Your task to perform on an android device: Open Chrome and go to settings Image 0: 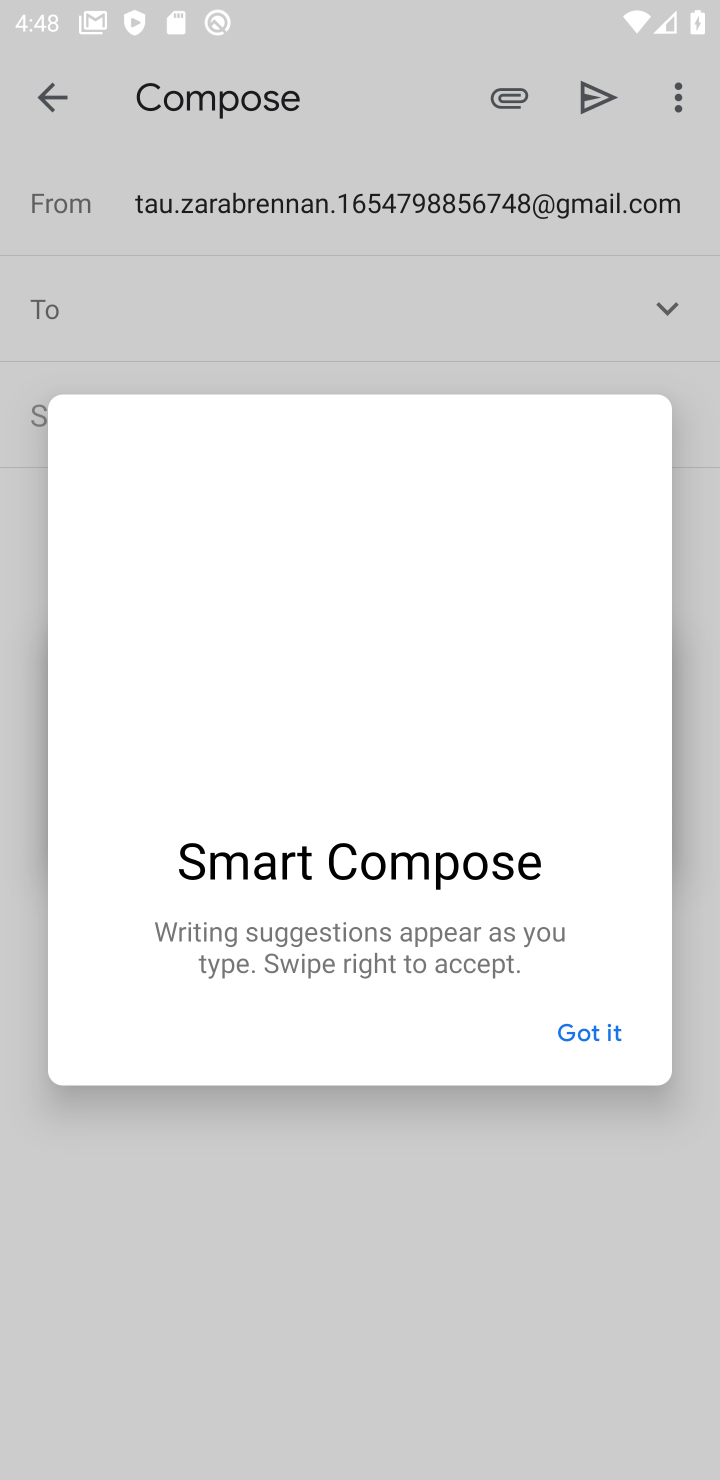
Step 0: press home button
Your task to perform on an android device: Open Chrome and go to settings Image 1: 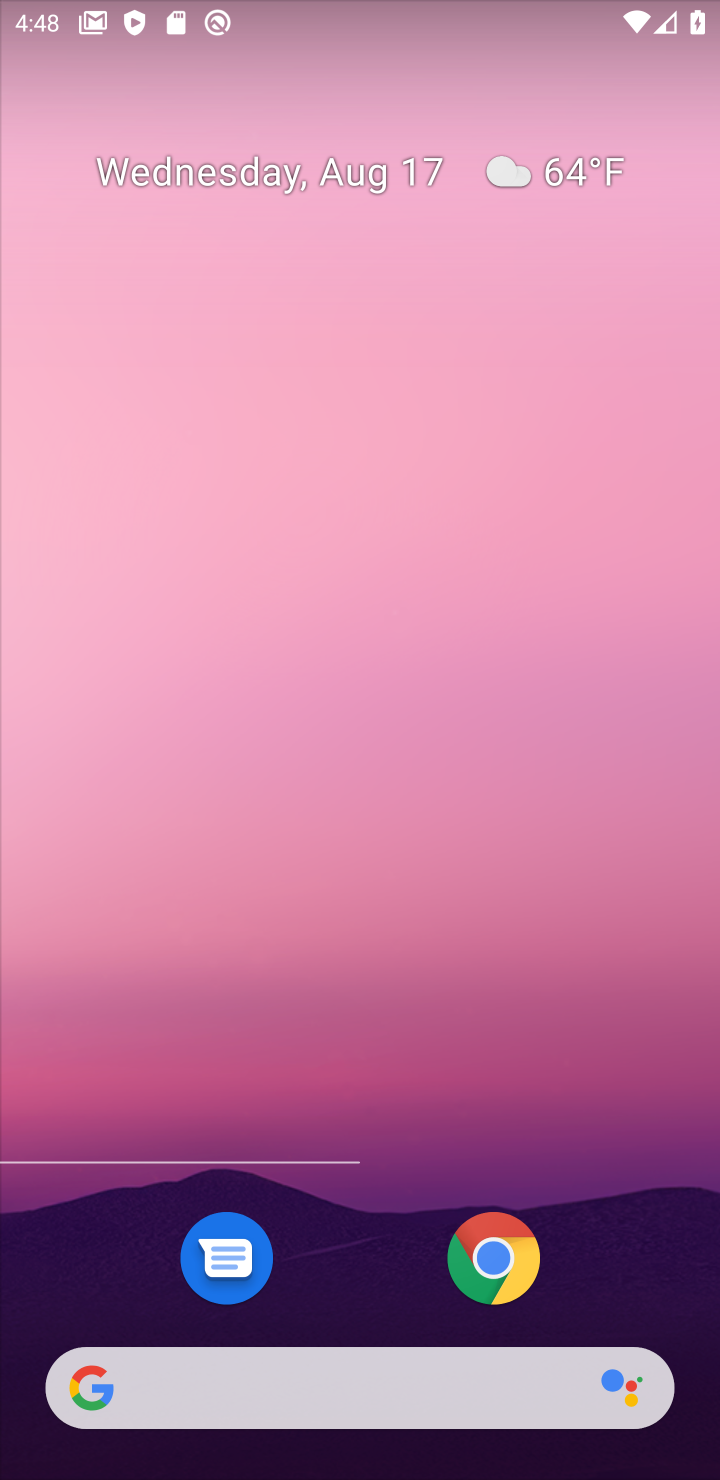
Step 1: press home button
Your task to perform on an android device: Open Chrome and go to settings Image 2: 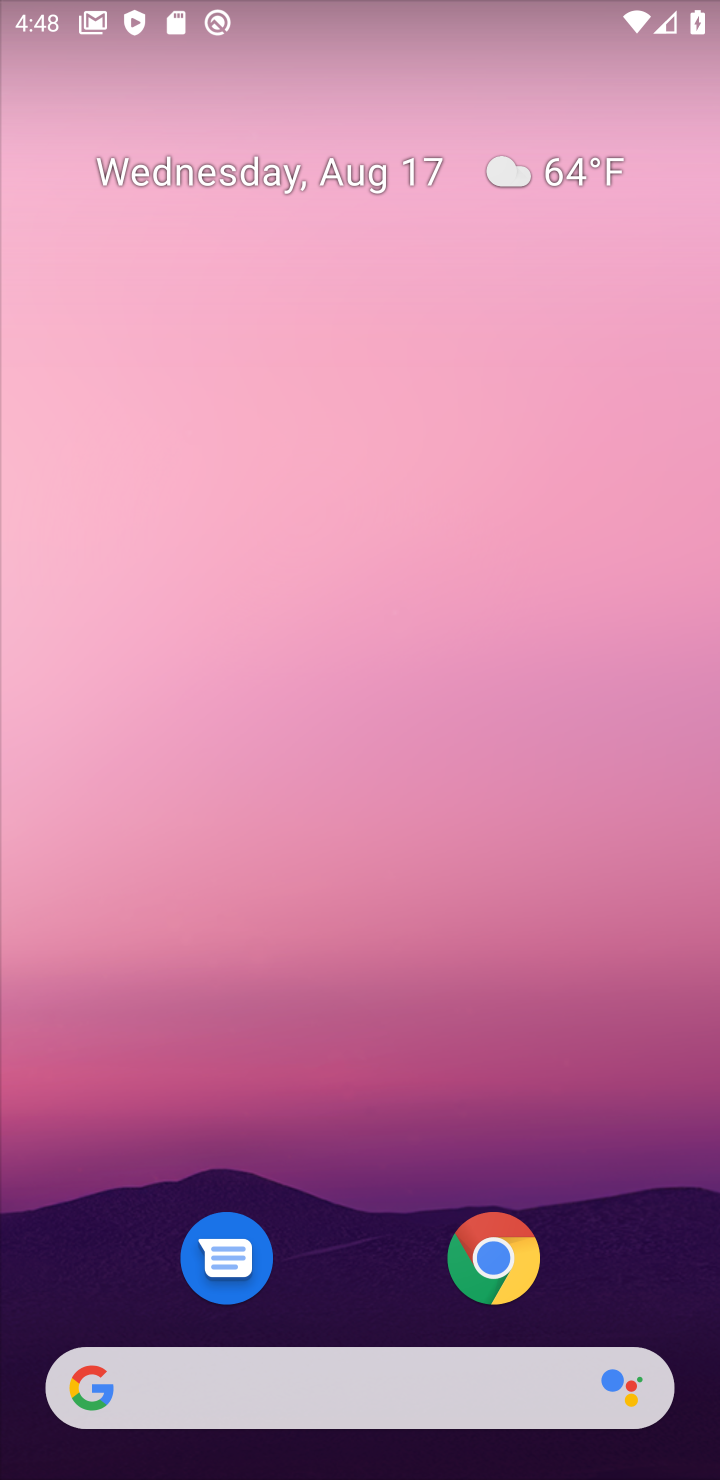
Step 2: drag from (372, 1222) to (493, 314)
Your task to perform on an android device: Open Chrome and go to settings Image 3: 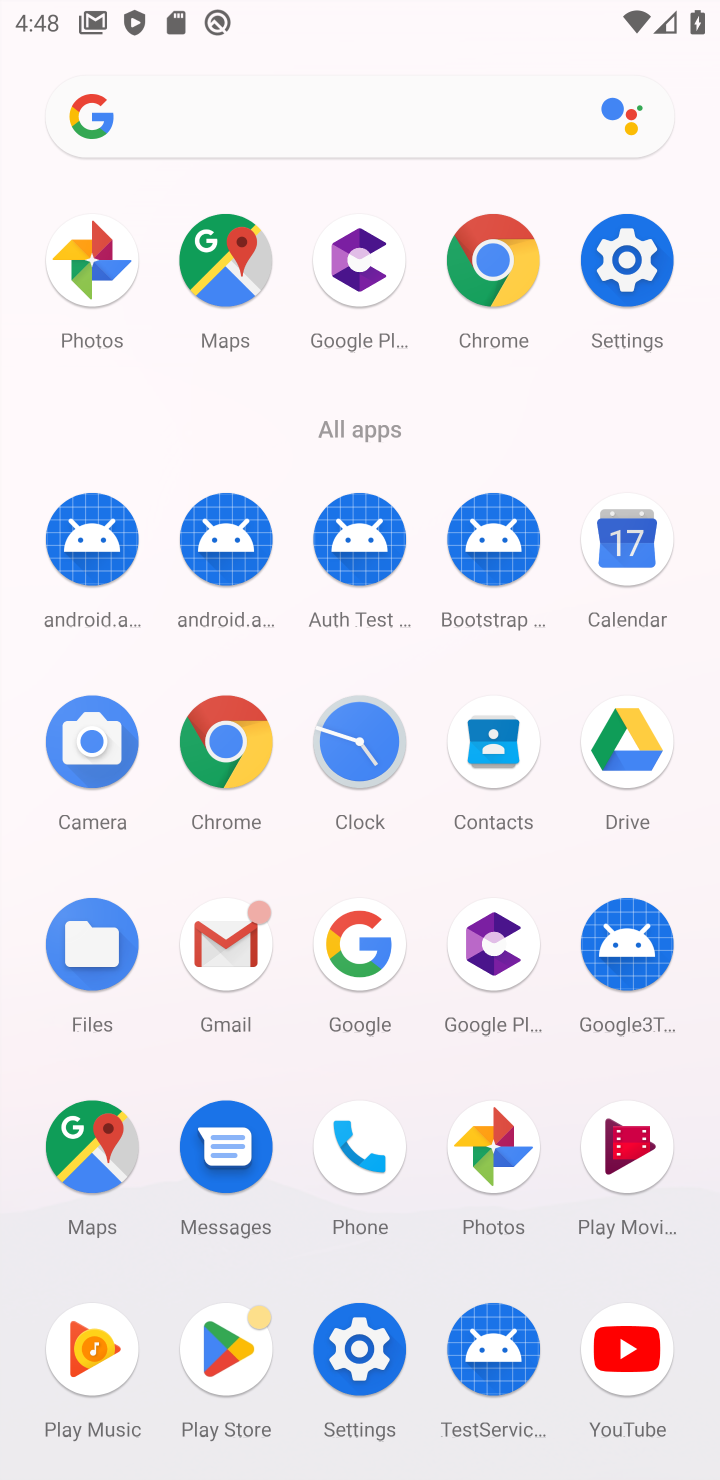
Step 3: click (220, 747)
Your task to perform on an android device: Open Chrome and go to settings Image 4: 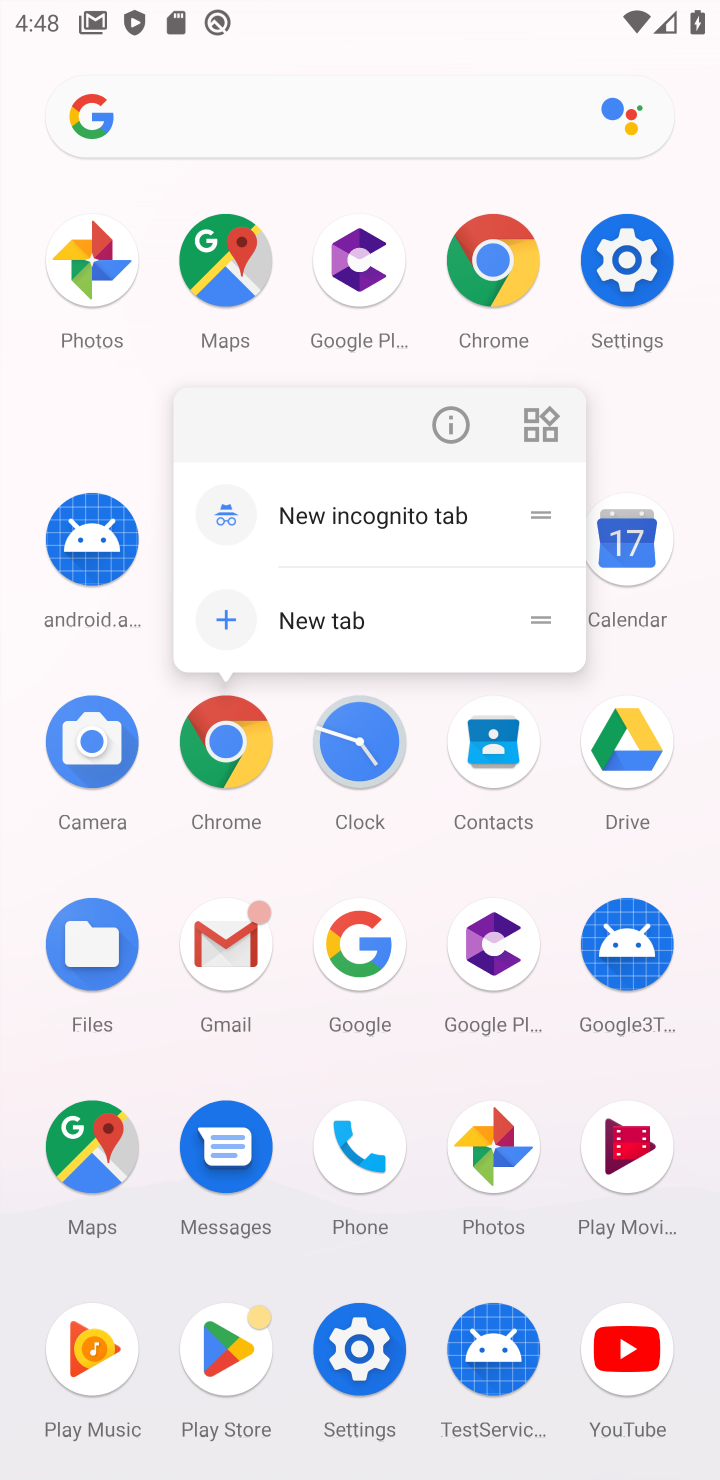
Step 4: click (229, 736)
Your task to perform on an android device: Open Chrome and go to settings Image 5: 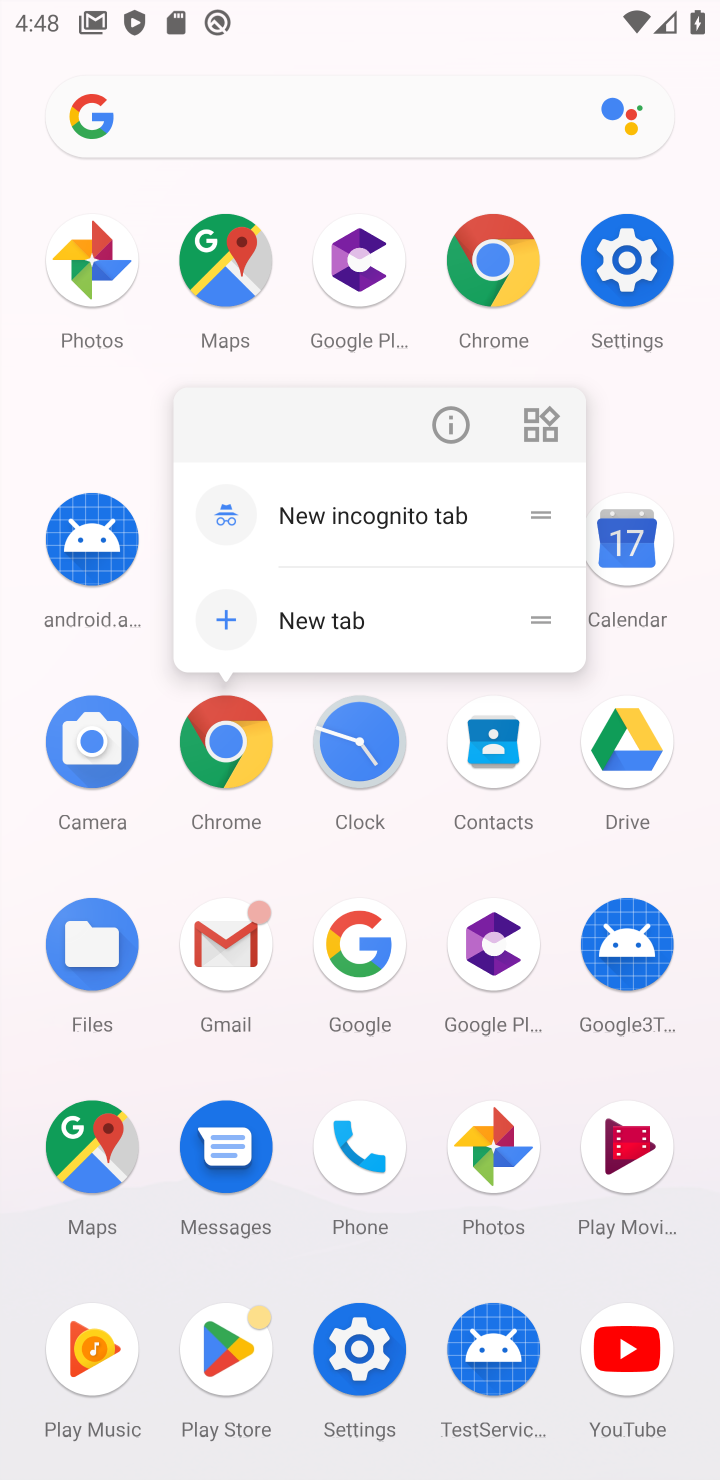
Step 5: click (229, 736)
Your task to perform on an android device: Open Chrome and go to settings Image 6: 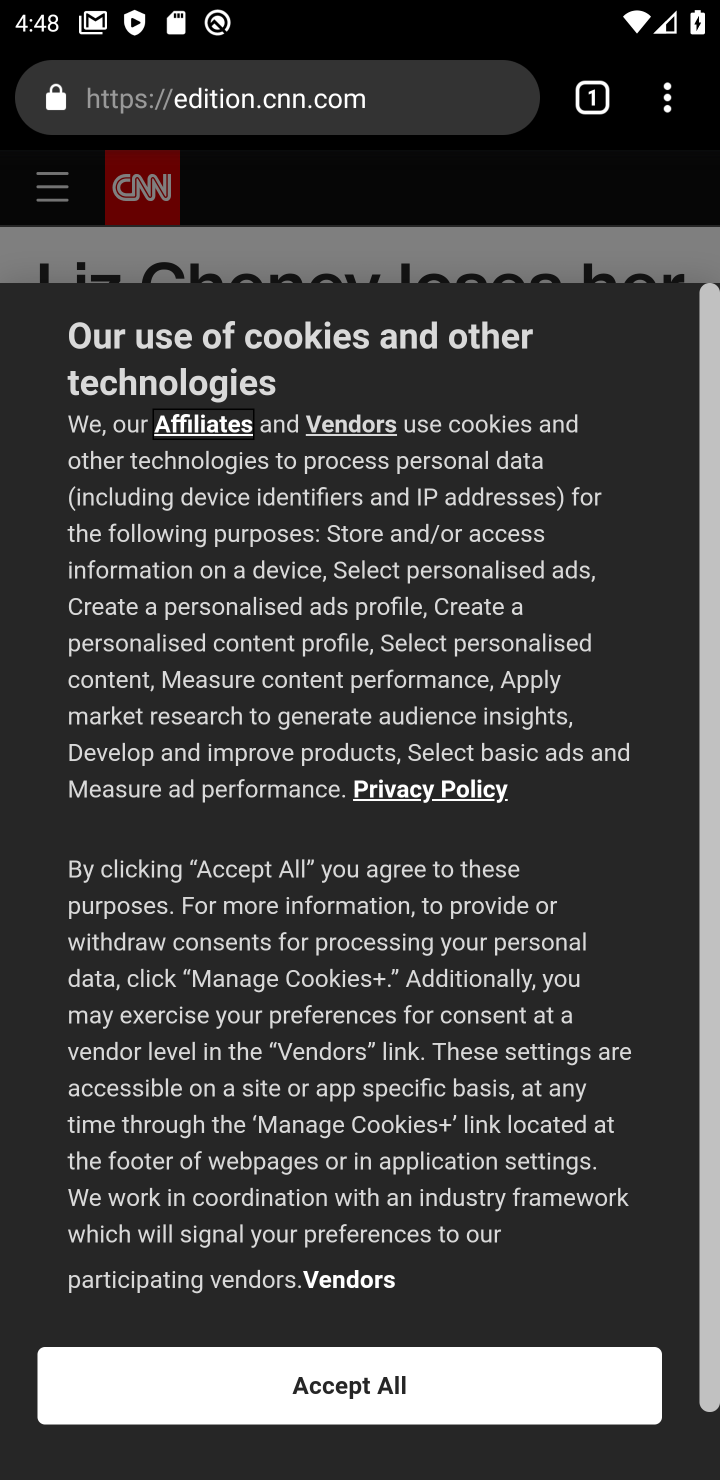
Step 6: task complete